Your task to perform on an android device: open device folders in google photos Image 0: 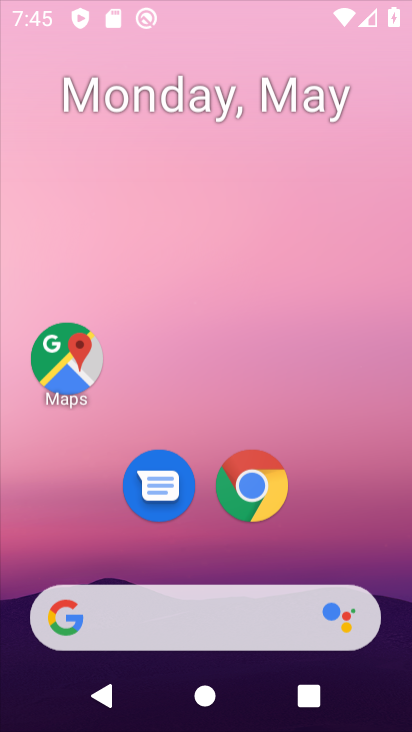
Step 0: press home button
Your task to perform on an android device: open device folders in google photos Image 1: 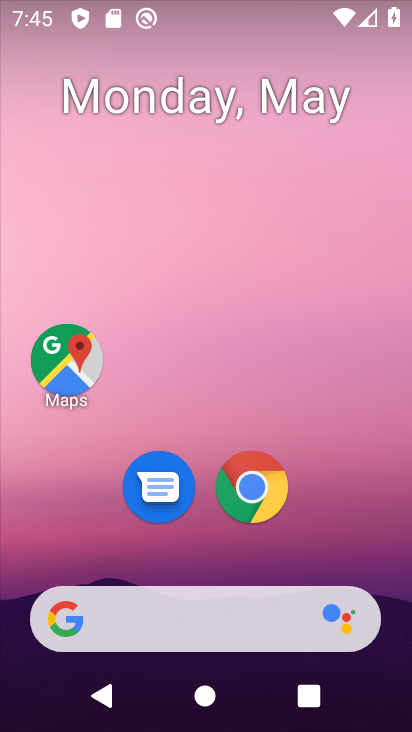
Step 1: click (248, 169)
Your task to perform on an android device: open device folders in google photos Image 2: 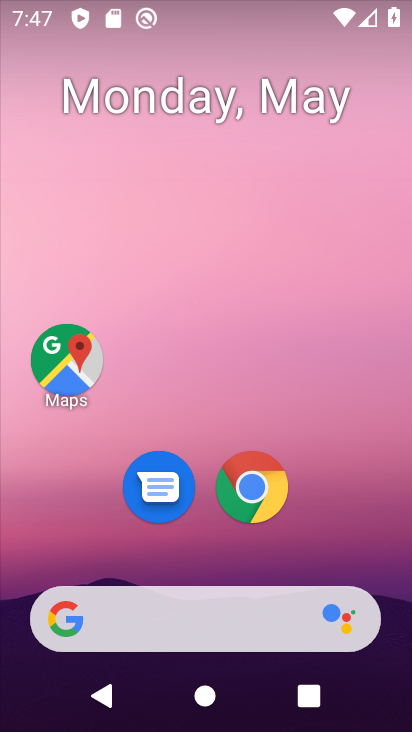
Step 2: drag from (196, 559) to (248, 132)
Your task to perform on an android device: open device folders in google photos Image 3: 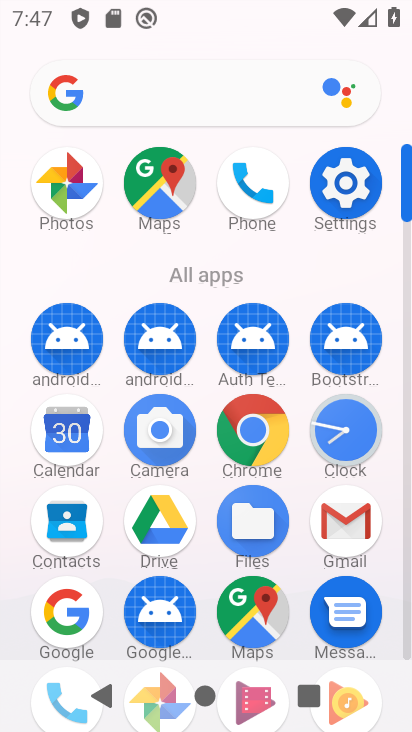
Step 3: drag from (390, 572) to (332, 139)
Your task to perform on an android device: open device folders in google photos Image 4: 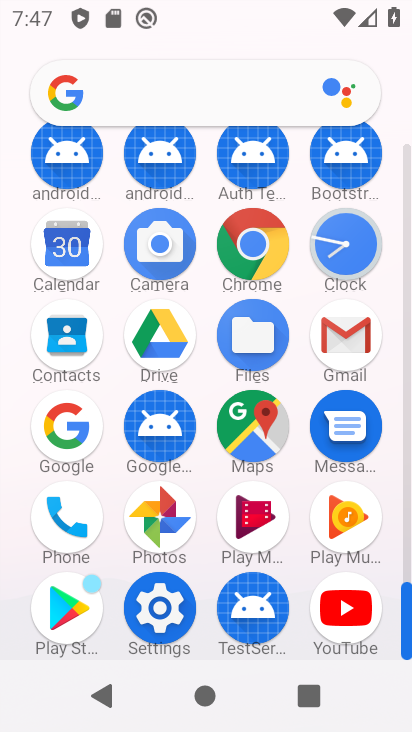
Step 4: click (144, 528)
Your task to perform on an android device: open device folders in google photos Image 5: 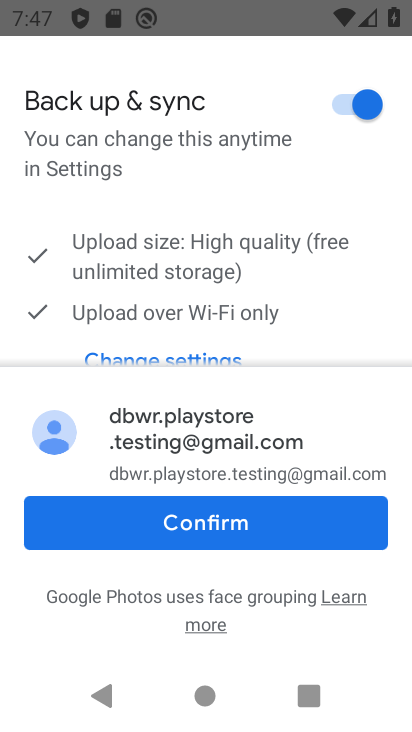
Step 5: click (101, 530)
Your task to perform on an android device: open device folders in google photos Image 6: 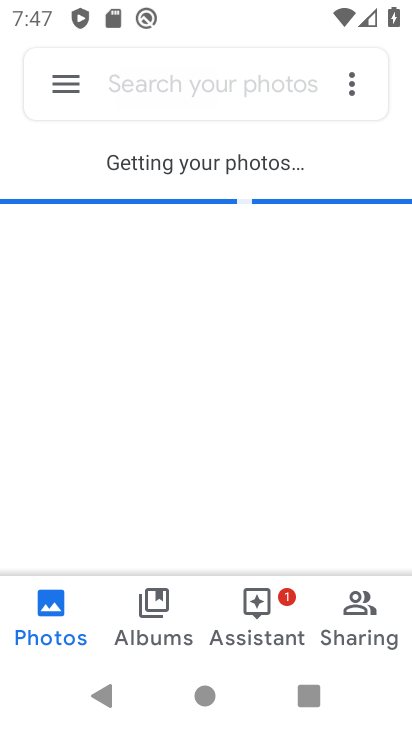
Step 6: click (62, 81)
Your task to perform on an android device: open device folders in google photos Image 7: 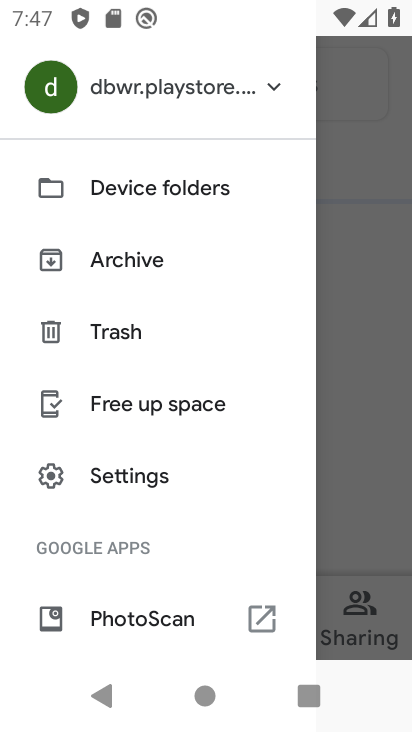
Step 7: click (152, 189)
Your task to perform on an android device: open device folders in google photos Image 8: 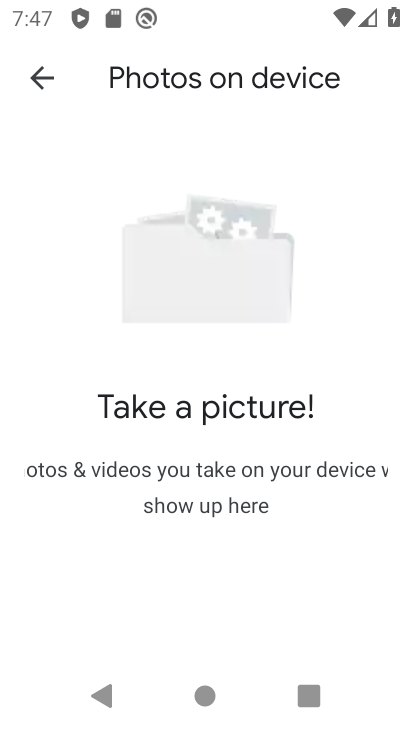
Step 8: task complete